Your task to perform on an android device: turn off picture-in-picture Image 0: 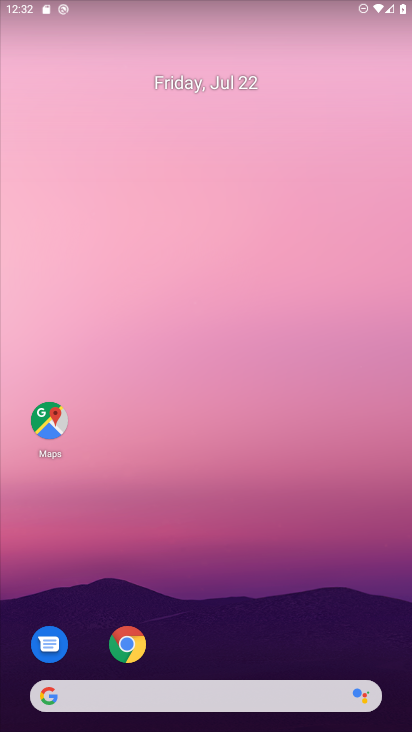
Step 0: click (118, 636)
Your task to perform on an android device: turn off picture-in-picture Image 1: 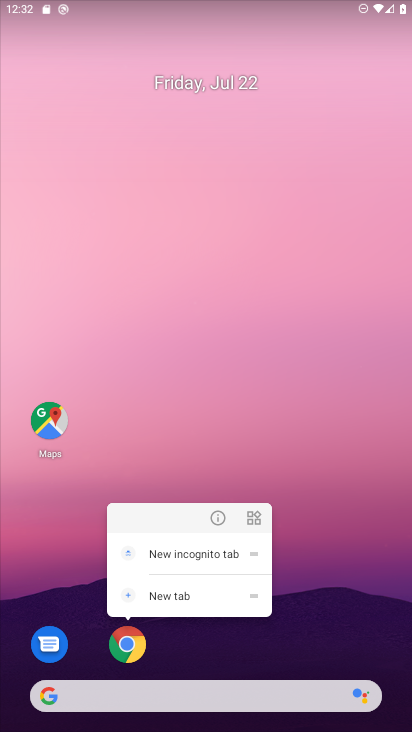
Step 1: click (207, 522)
Your task to perform on an android device: turn off picture-in-picture Image 2: 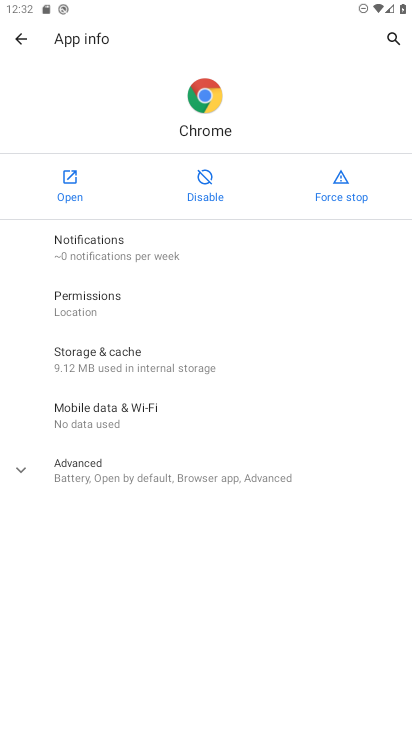
Step 2: click (202, 473)
Your task to perform on an android device: turn off picture-in-picture Image 3: 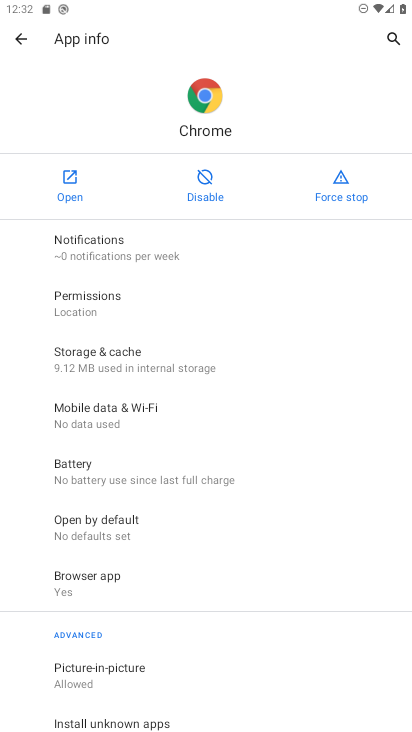
Step 3: click (206, 666)
Your task to perform on an android device: turn off picture-in-picture Image 4: 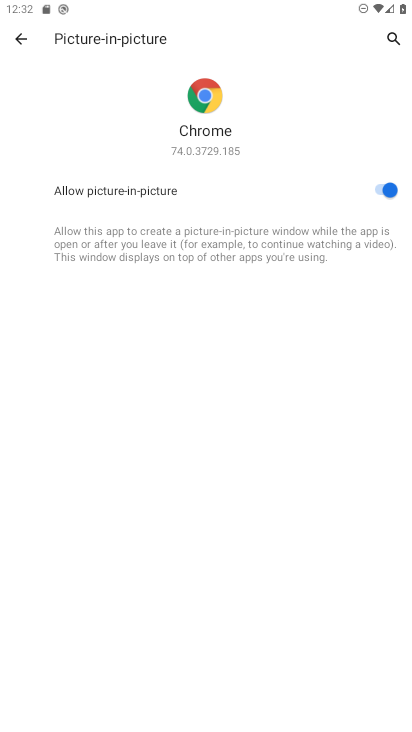
Step 4: click (376, 196)
Your task to perform on an android device: turn off picture-in-picture Image 5: 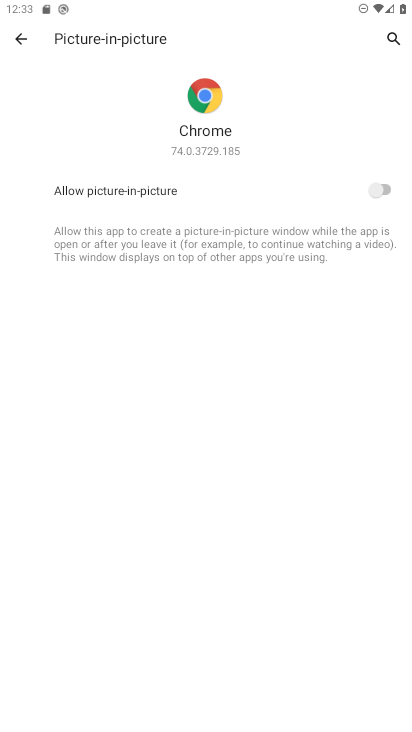
Step 5: task complete